Your task to perform on an android device: turn off location history Image 0: 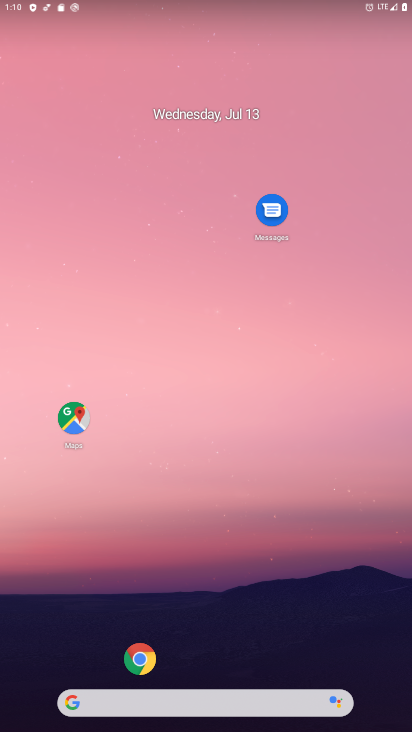
Step 0: drag from (83, 547) to (240, 136)
Your task to perform on an android device: turn off location history Image 1: 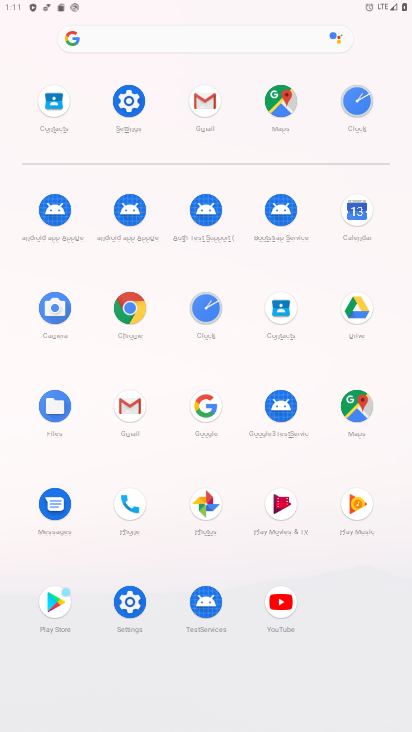
Step 1: click (130, 587)
Your task to perform on an android device: turn off location history Image 2: 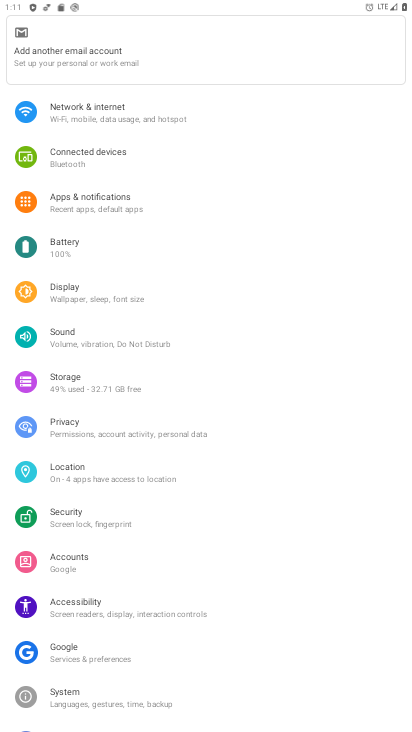
Step 2: click (103, 457)
Your task to perform on an android device: turn off location history Image 3: 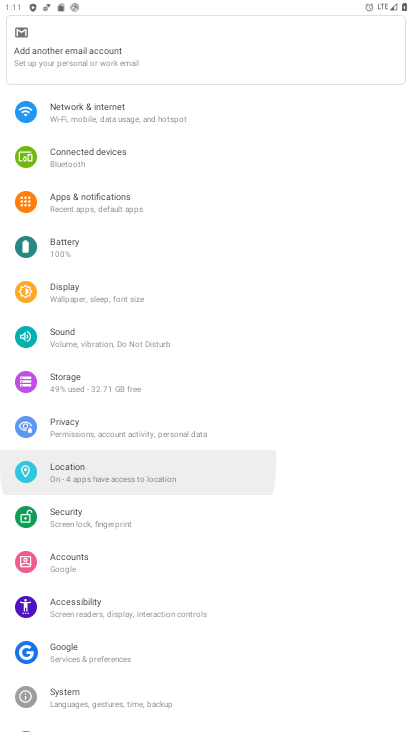
Step 3: click (79, 478)
Your task to perform on an android device: turn off location history Image 4: 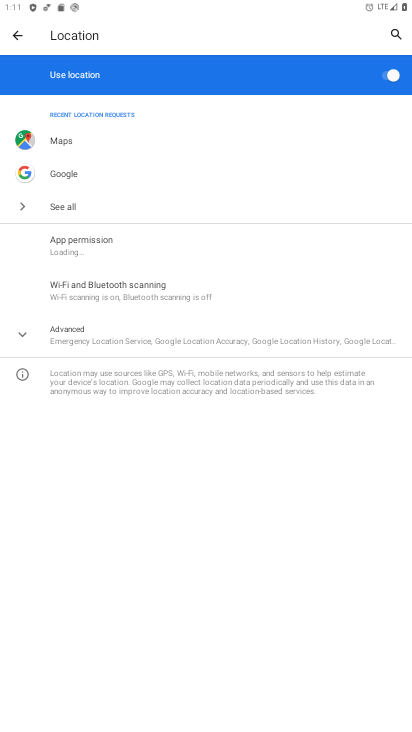
Step 4: click (90, 337)
Your task to perform on an android device: turn off location history Image 5: 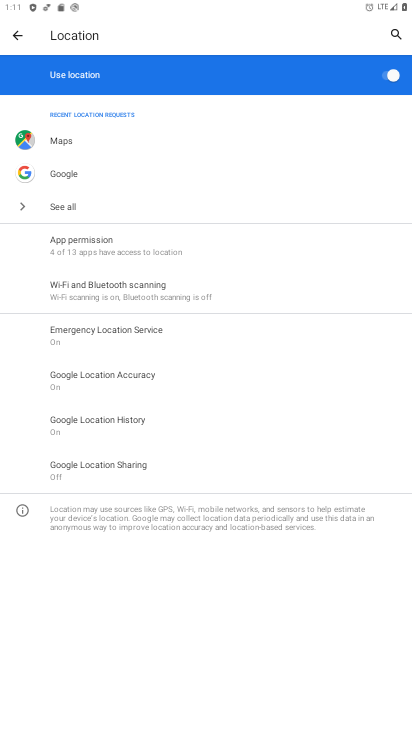
Step 5: click (118, 419)
Your task to perform on an android device: turn off location history Image 6: 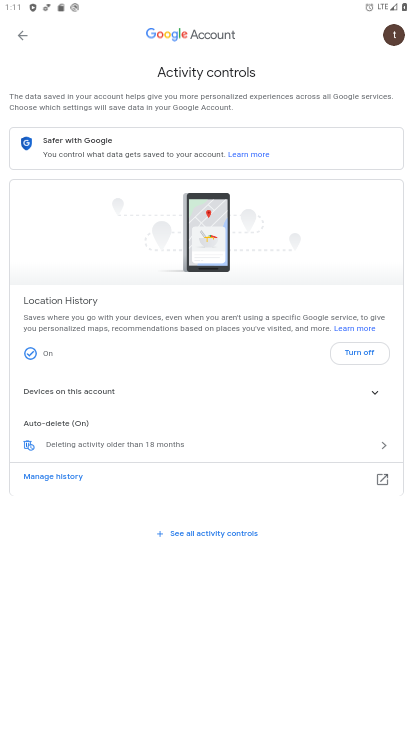
Step 6: click (31, 348)
Your task to perform on an android device: turn off location history Image 7: 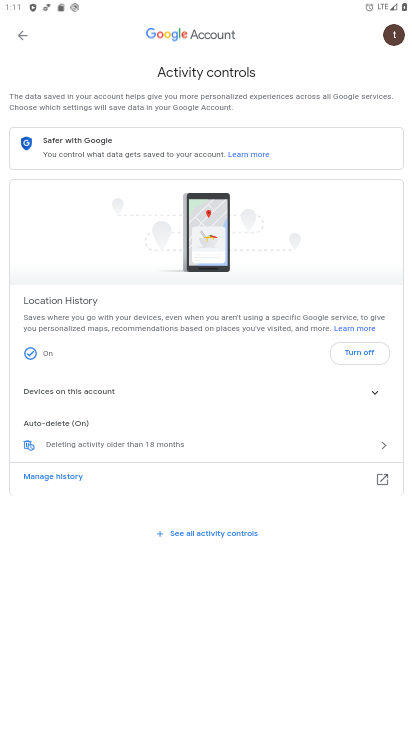
Step 7: click (357, 347)
Your task to perform on an android device: turn off location history Image 8: 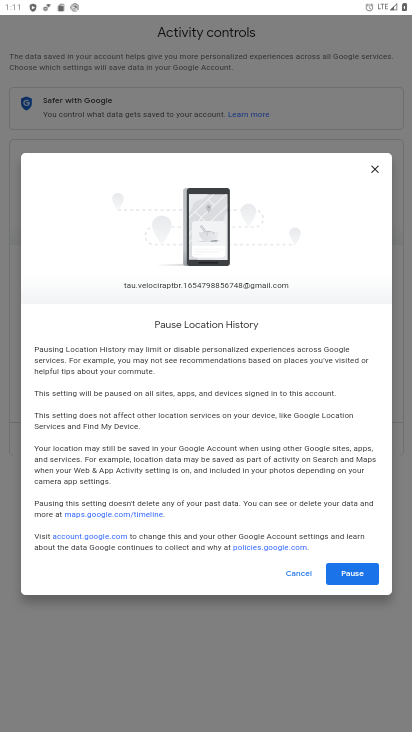
Step 8: click (346, 568)
Your task to perform on an android device: turn off location history Image 9: 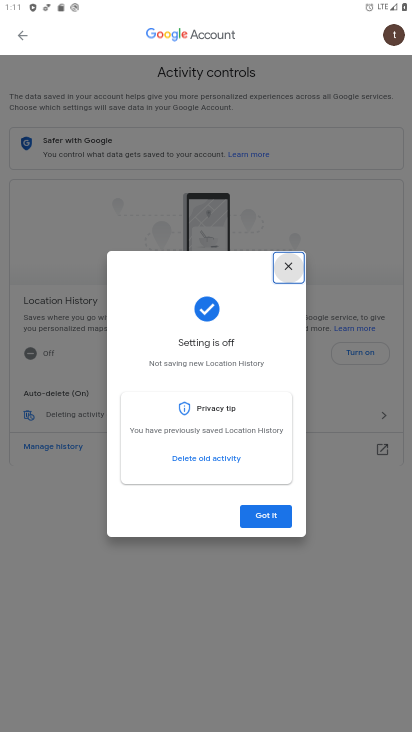
Step 9: click (264, 510)
Your task to perform on an android device: turn off location history Image 10: 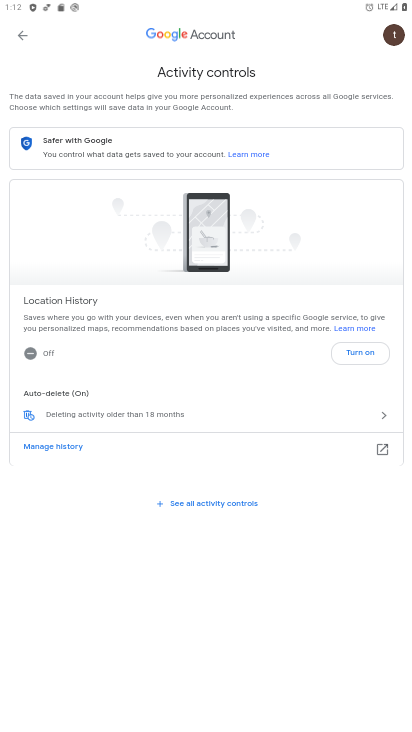
Step 10: task complete